Your task to perform on an android device: Open Google Maps and go to "Timeline" Image 0: 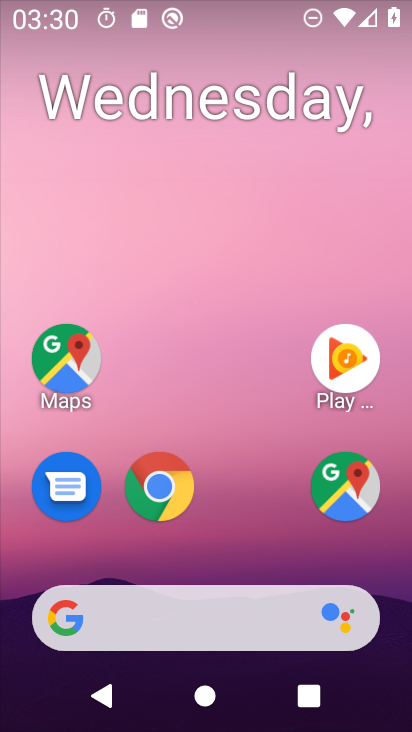
Step 0: press home button
Your task to perform on an android device: Open Google Maps and go to "Timeline" Image 1: 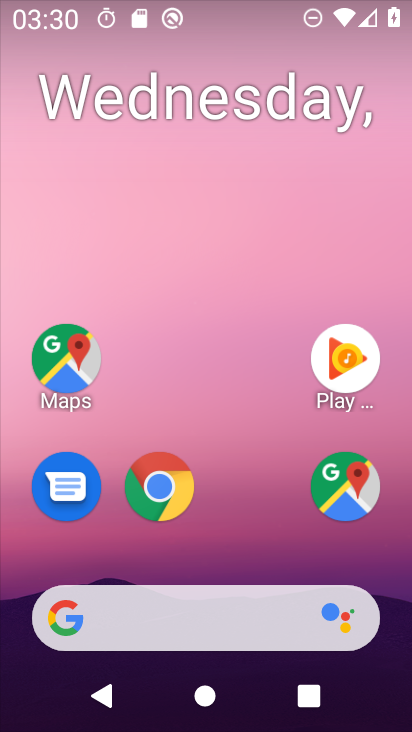
Step 1: drag from (279, 551) to (280, 142)
Your task to perform on an android device: Open Google Maps and go to "Timeline" Image 2: 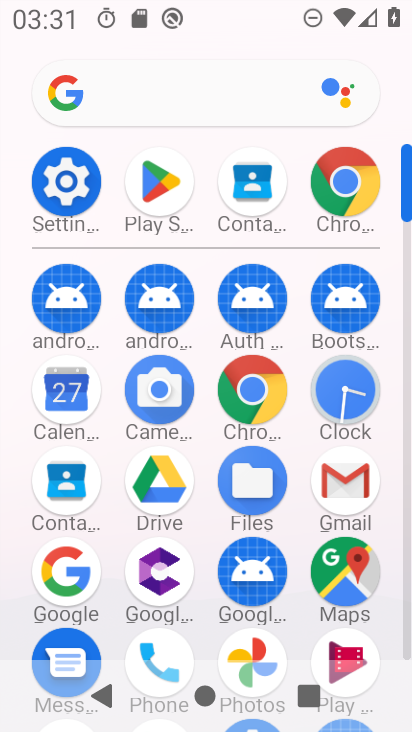
Step 2: click (353, 580)
Your task to perform on an android device: Open Google Maps and go to "Timeline" Image 3: 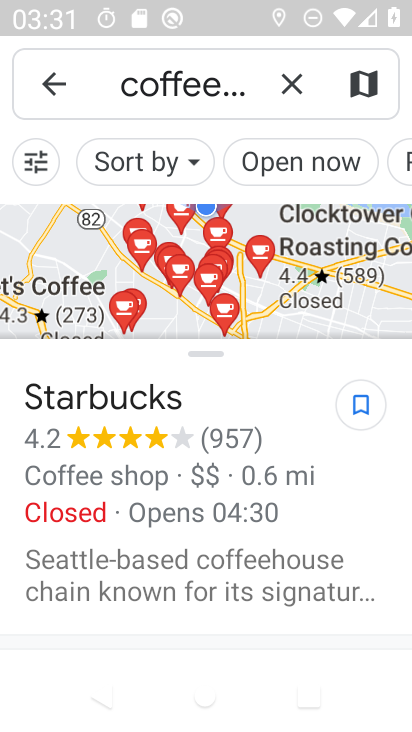
Step 3: press back button
Your task to perform on an android device: Open Google Maps and go to "Timeline" Image 4: 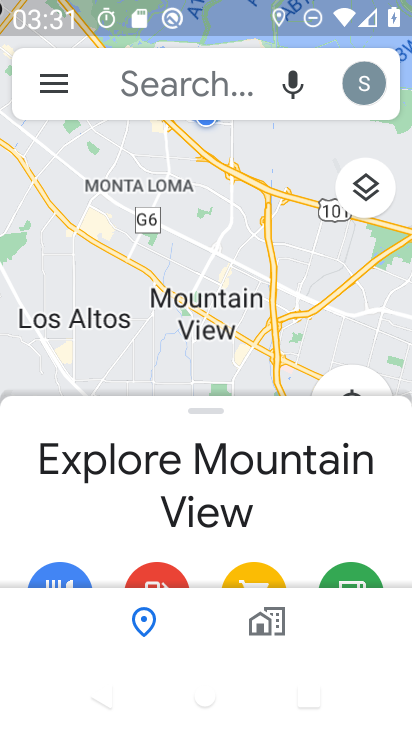
Step 4: click (59, 85)
Your task to perform on an android device: Open Google Maps and go to "Timeline" Image 5: 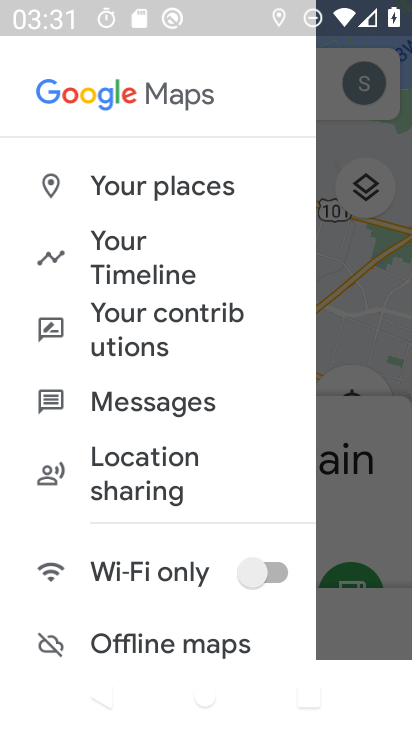
Step 5: click (160, 267)
Your task to perform on an android device: Open Google Maps and go to "Timeline" Image 6: 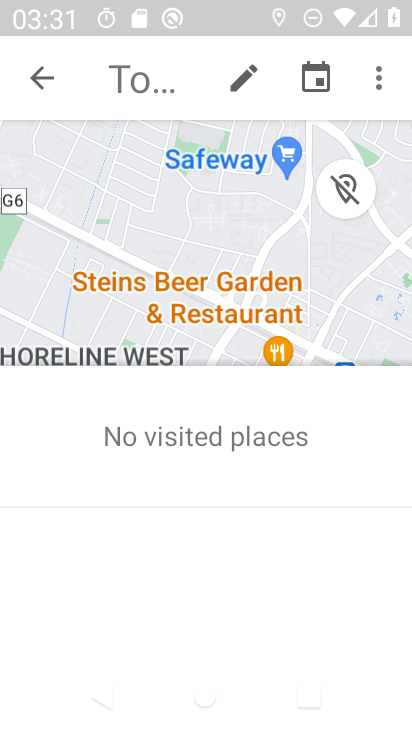
Step 6: task complete